Your task to perform on an android device: see sites visited before in the chrome app Image 0: 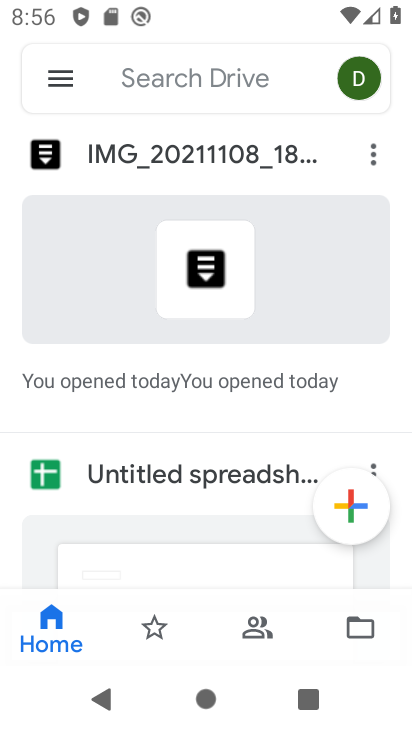
Step 0: press home button
Your task to perform on an android device: see sites visited before in the chrome app Image 1: 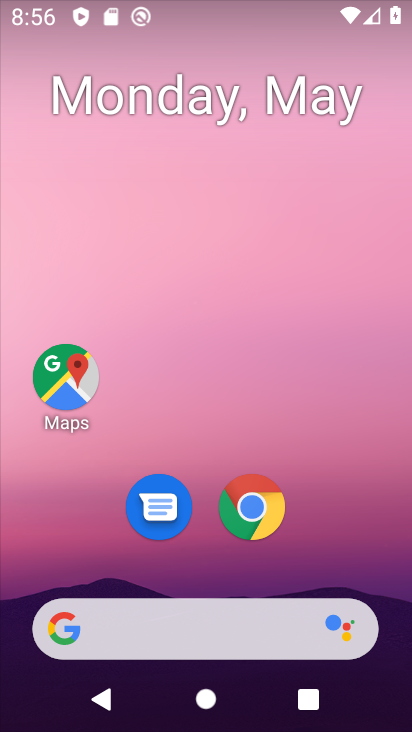
Step 1: click (264, 508)
Your task to perform on an android device: see sites visited before in the chrome app Image 2: 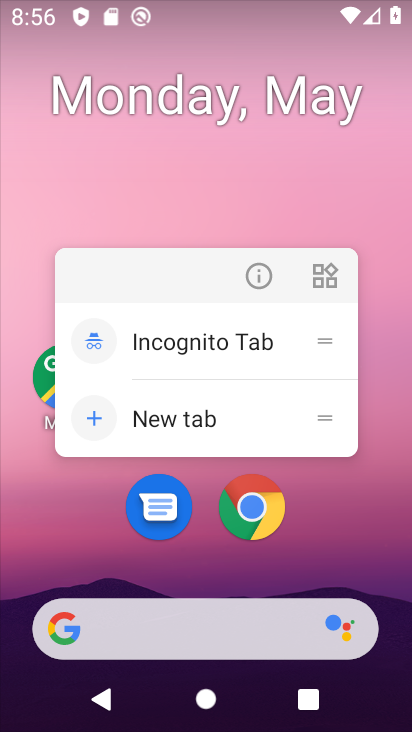
Step 2: click (263, 506)
Your task to perform on an android device: see sites visited before in the chrome app Image 3: 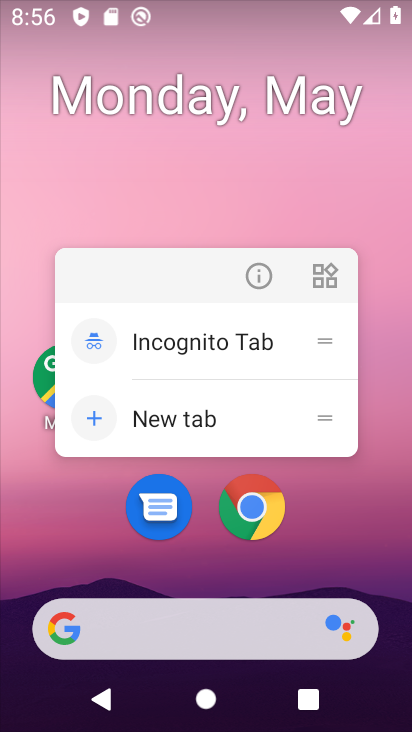
Step 3: click (263, 506)
Your task to perform on an android device: see sites visited before in the chrome app Image 4: 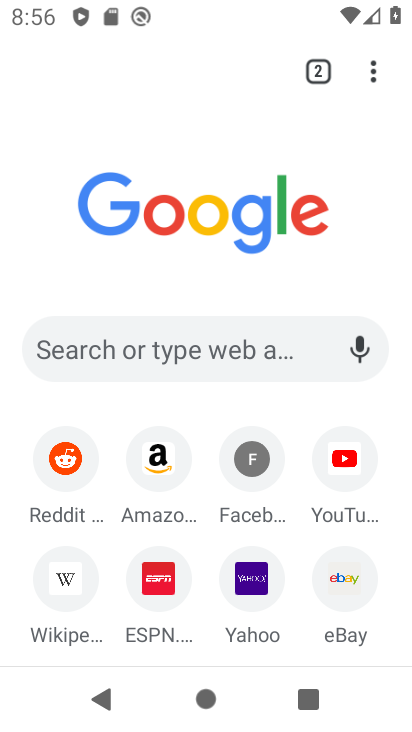
Step 4: click (377, 67)
Your task to perform on an android device: see sites visited before in the chrome app Image 5: 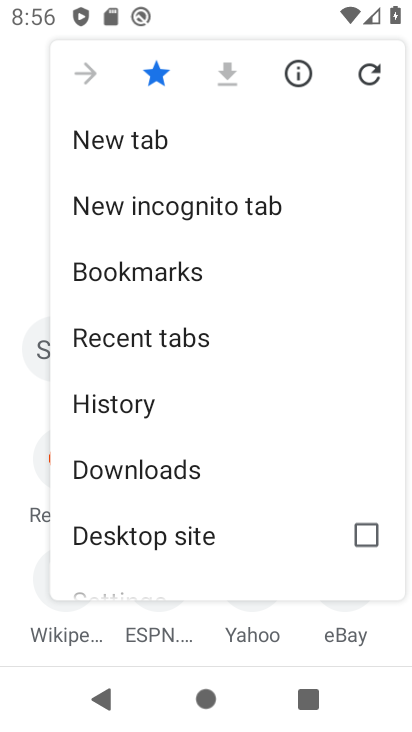
Step 5: click (133, 400)
Your task to perform on an android device: see sites visited before in the chrome app Image 6: 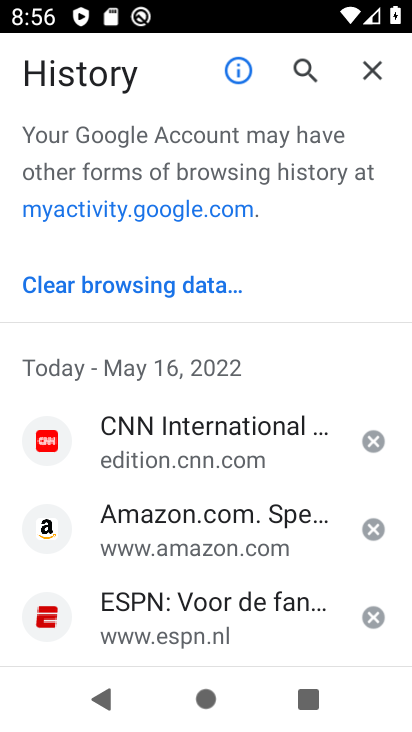
Step 6: task complete